Your task to perform on an android device: refresh tabs in the chrome app Image 0: 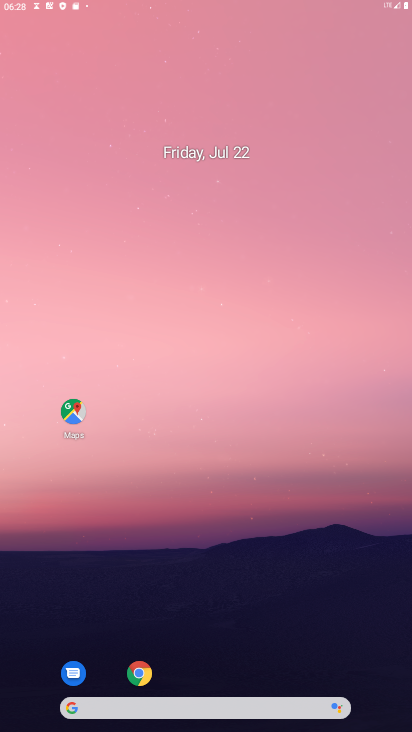
Step 0: press home button
Your task to perform on an android device: refresh tabs in the chrome app Image 1: 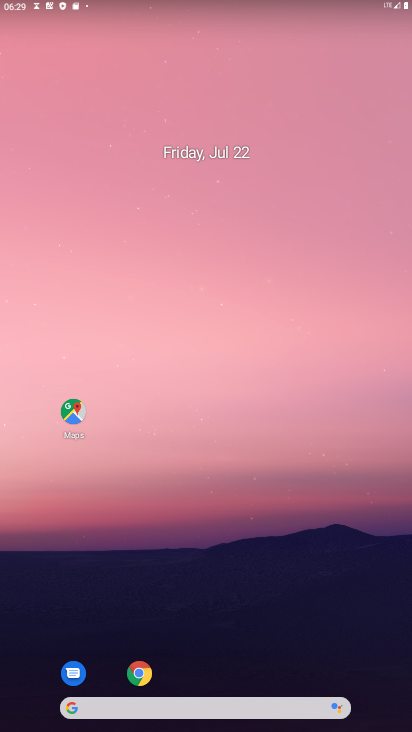
Step 1: drag from (224, 664) to (210, 119)
Your task to perform on an android device: refresh tabs in the chrome app Image 2: 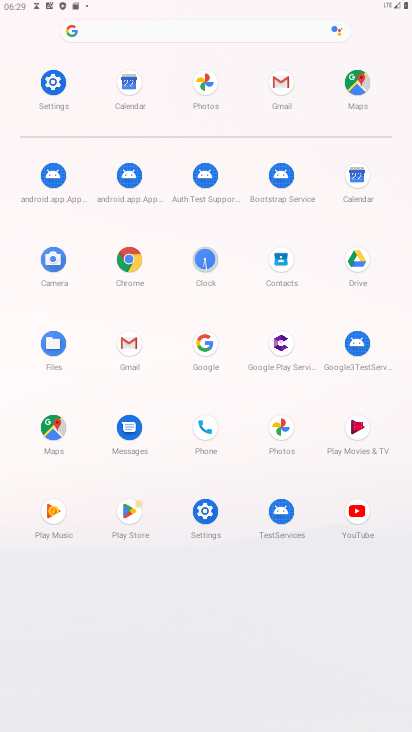
Step 2: click (132, 259)
Your task to perform on an android device: refresh tabs in the chrome app Image 3: 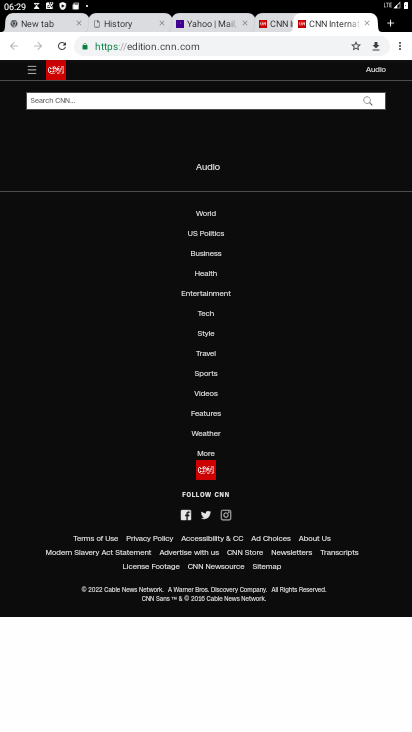
Step 3: drag from (402, 46) to (78, 56)
Your task to perform on an android device: refresh tabs in the chrome app Image 4: 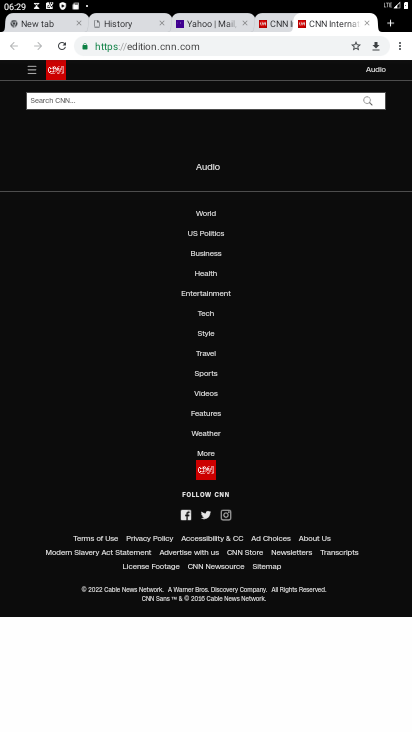
Step 4: click (61, 47)
Your task to perform on an android device: refresh tabs in the chrome app Image 5: 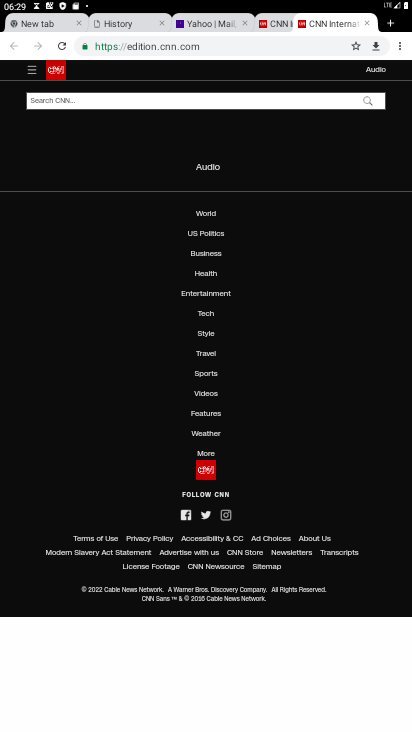
Step 5: task complete